Your task to perform on an android device: Search for "bose soundlink mini" on amazon.com, select the first entry, and add it to the cart. Image 0: 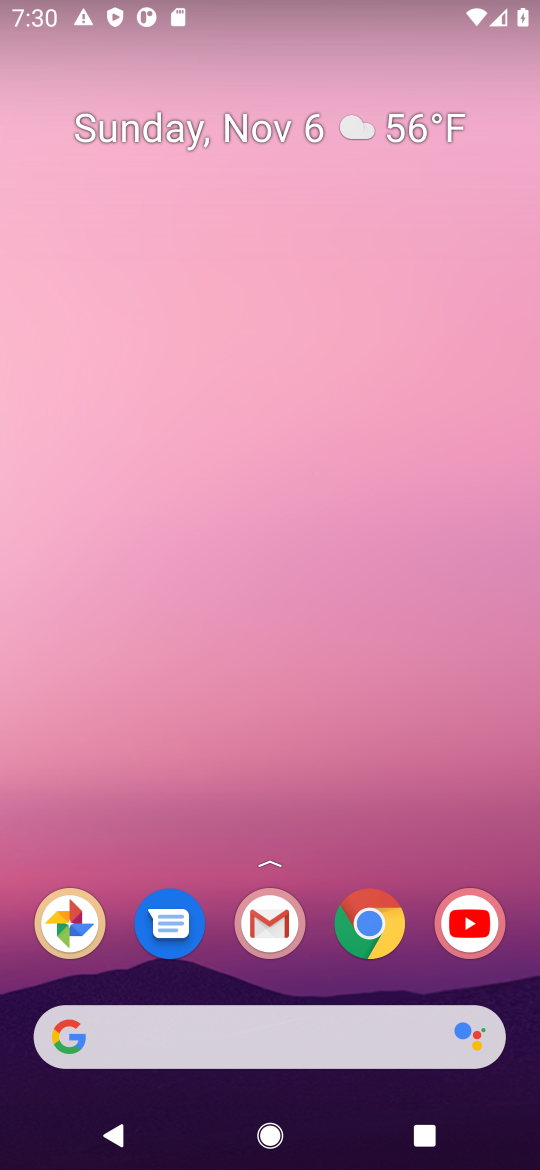
Step 0: click (372, 940)
Your task to perform on an android device: Search for "bose soundlink mini" on amazon.com, select the first entry, and add it to the cart. Image 1: 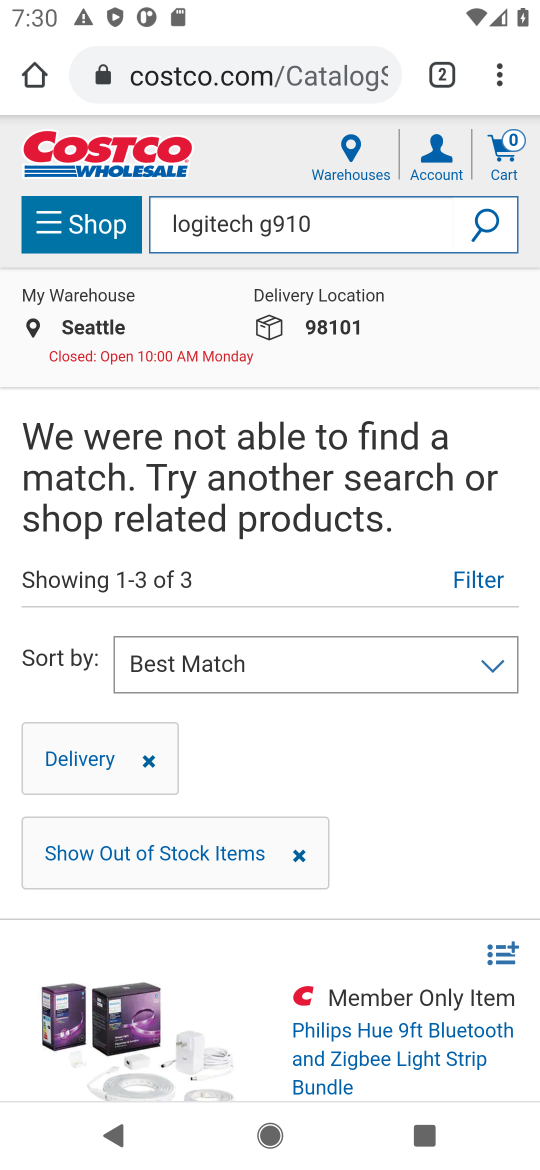
Step 1: click (293, 75)
Your task to perform on an android device: Search for "bose soundlink mini" on amazon.com, select the first entry, and add it to the cart. Image 2: 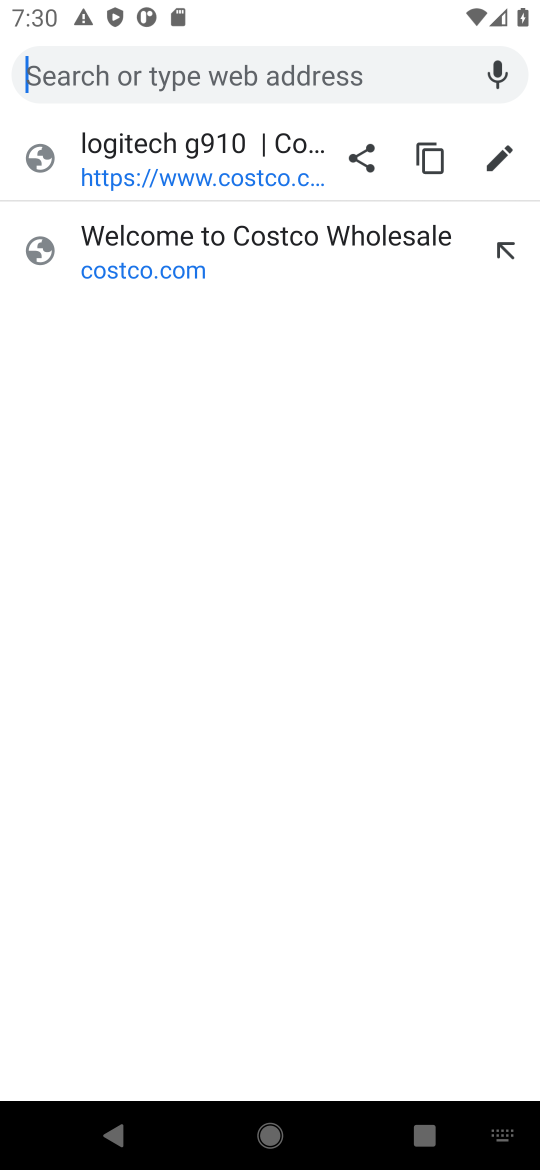
Step 2: type "amazon.com"
Your task to perform on an android device: Search for "bose soundlink mini" on amazon.com, select the first entry, and add it to the cart. Image 3: 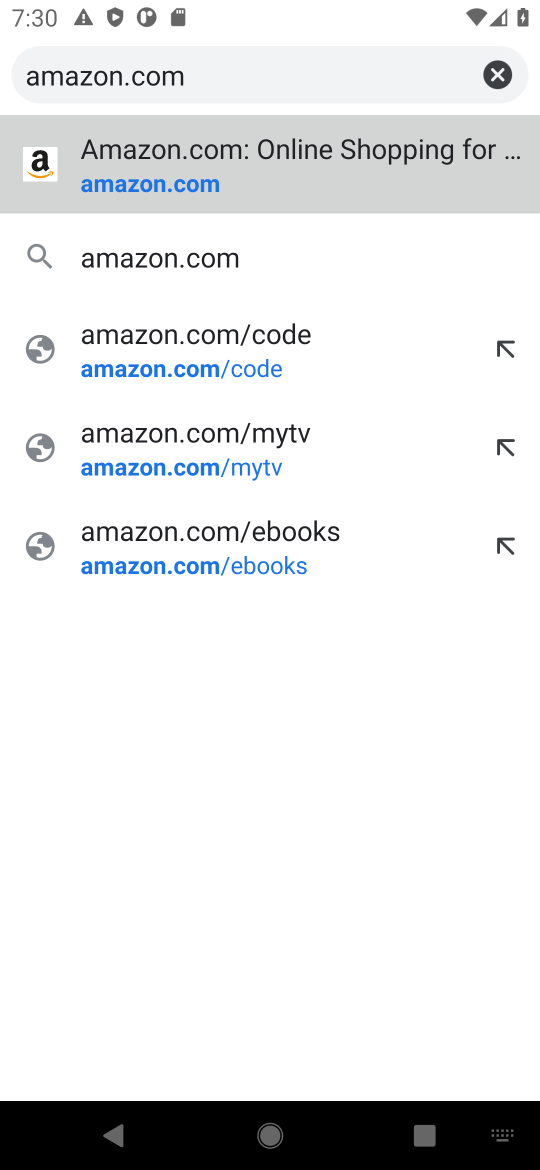
Step 3: click (153, 169)
Your task to perform on an android device: Search for "bose soundlink mini" on amazon.com, select the first entry, and add it to the cart. Image 4: 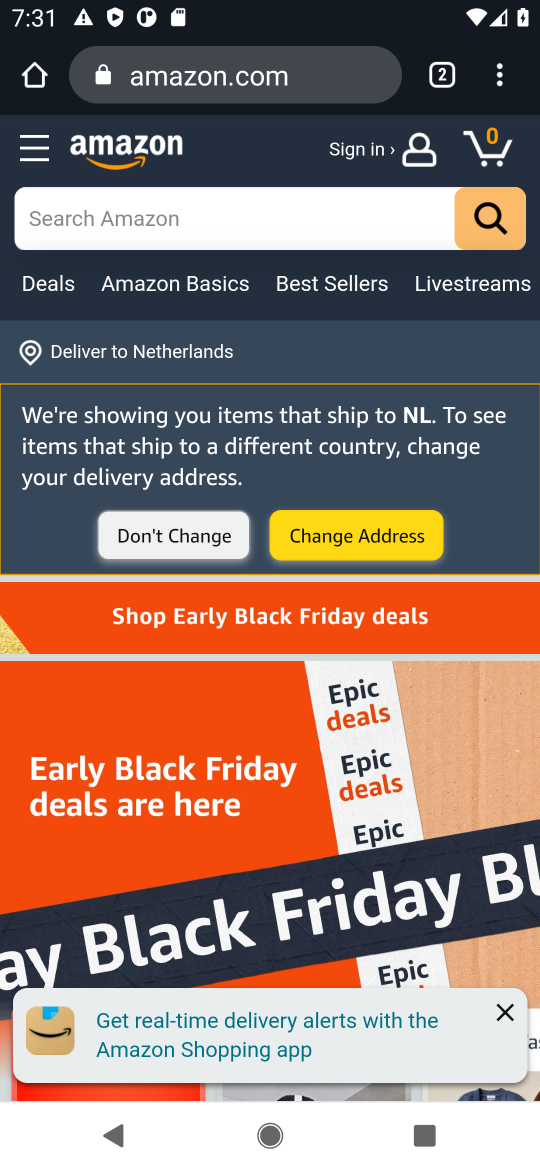
Step 4: click (228, 206)
Your task to perform on an android device: Search for "bose soundlink mini" on amazon.com, select the first entry, and add it to the cart. Image 5: 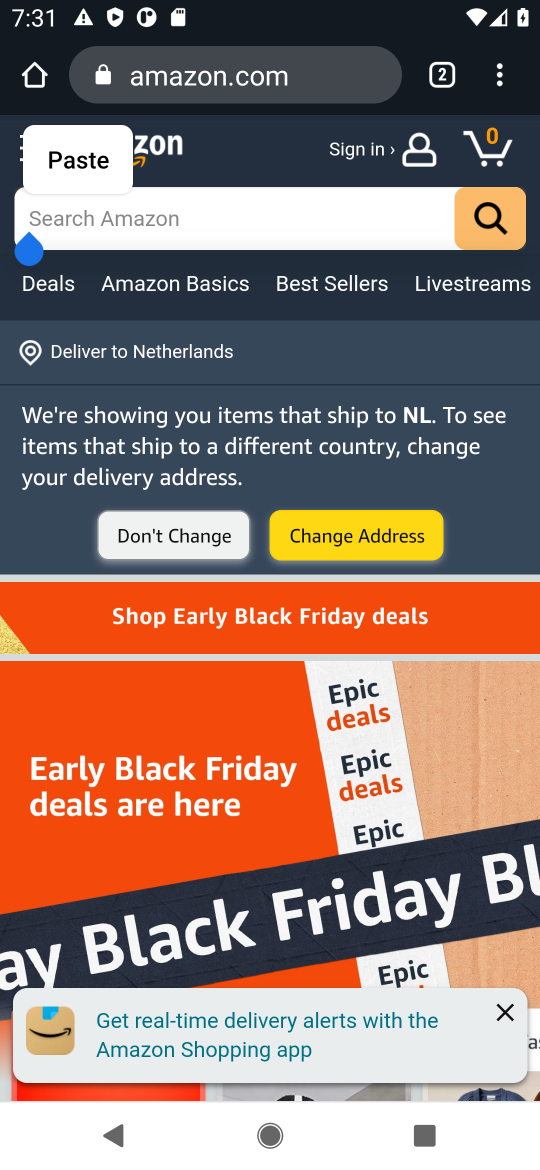
Step 5: type "bose soundlink mini"
Your task to perform on an android device: Search for "bose soundlink mini" on amazon.com, select the first entry, and add it to the cart. Image 6: 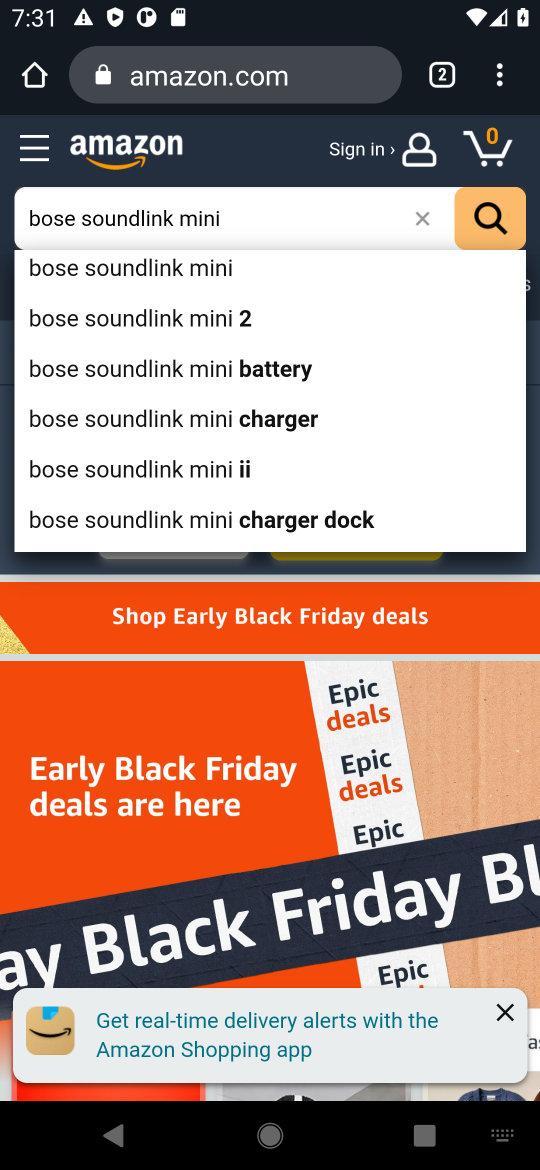
Step 6: click (142, 268)
Your task to perform on an android device: Search for "bose soundlink mini" on amazon.com, select the first entry, and add it to the cart. Image 7: 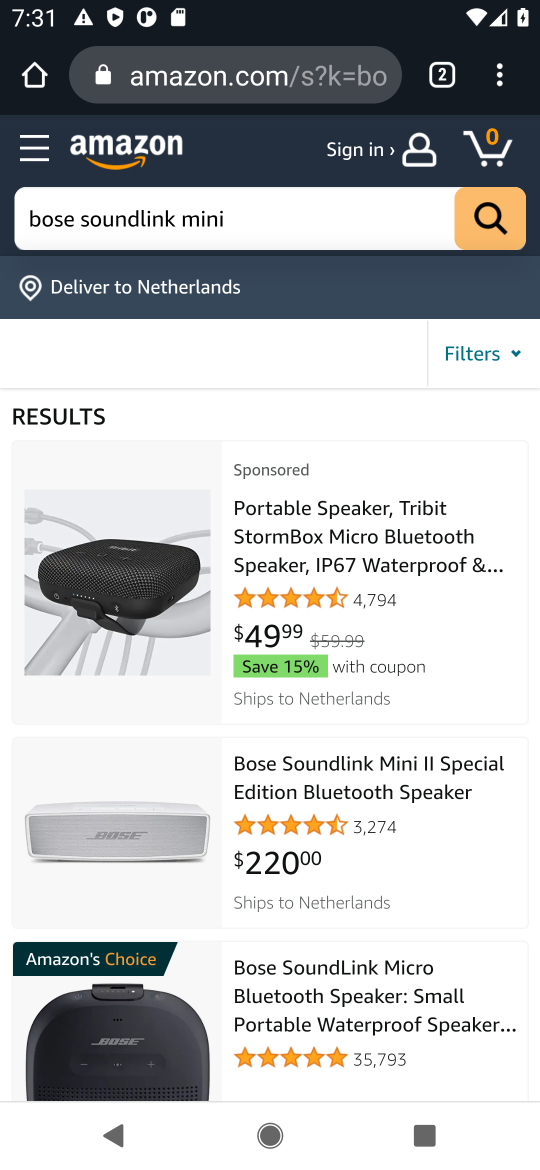
Step 7: task complete